Your task to perform on an android device: Open battery settings Image 0: 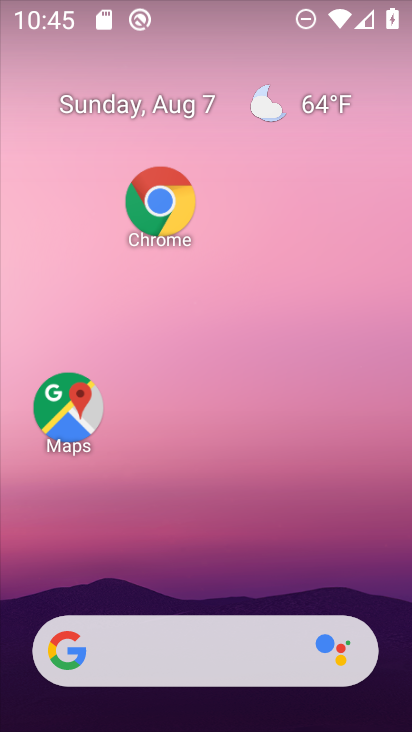
Step 0: drag from (199, 585) to (171, 59)
Your task to perform on an android device: Open battery settings Image 1: 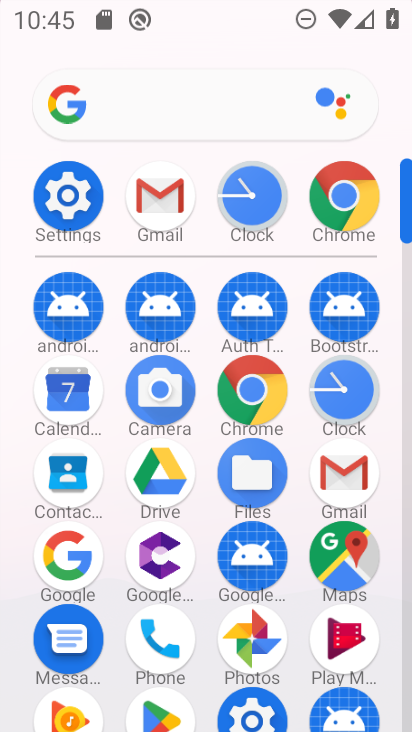
Step 1: click (58, 182)
Your task to perform on an android device: Open battery settings Image 2: 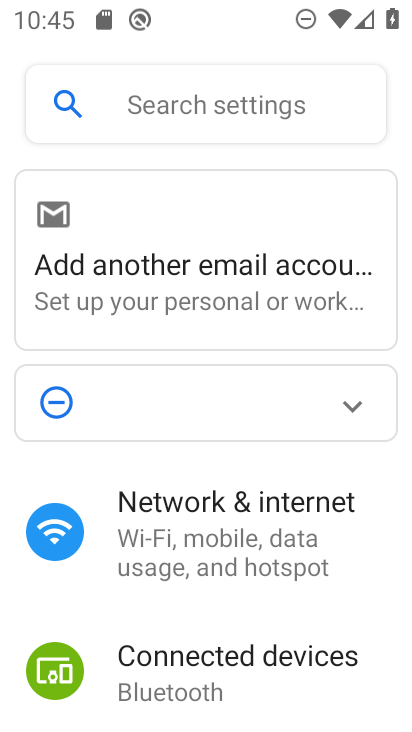
Step 2: drag from (204, 612) to (187, 3)
Your task to perform on an android device: Open battery settings Image 3: 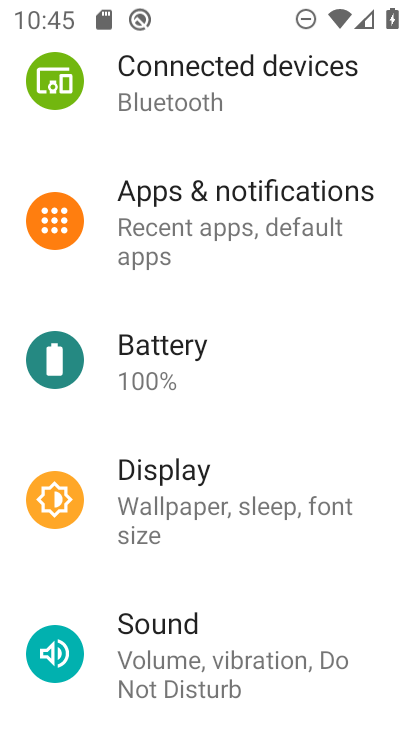
Step 3: click (134, 383)
Your task to perform on an android device: Open battery settings Image 4: 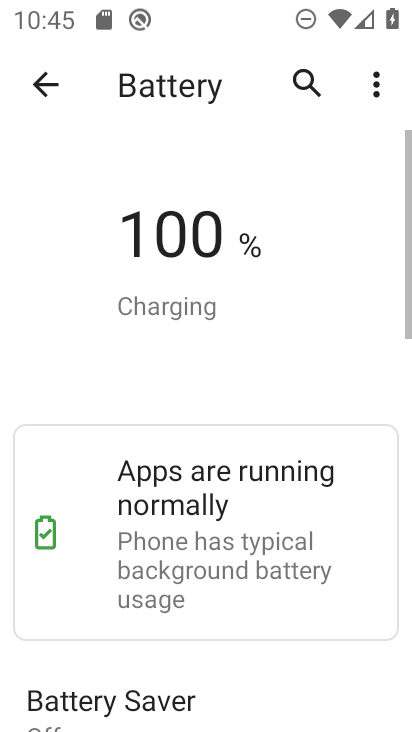
Step 4: task complete